Your task to perform on an android device: Find coffee shops on Maps Image 0: 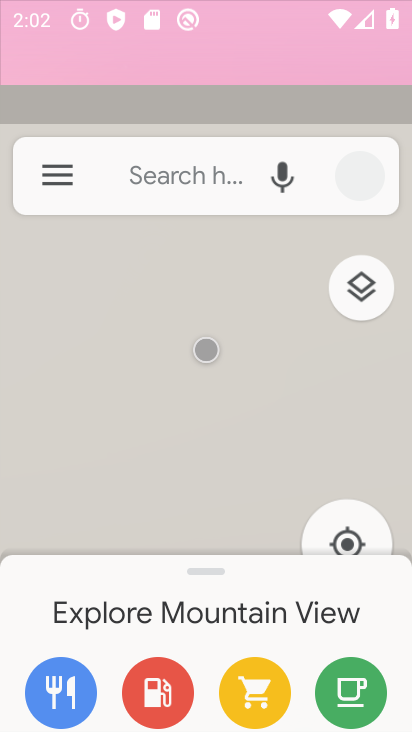
Step 0: drag from (314, 521) to (295, 176)
Your task to perform on an android device: Find coffee shops on Maps Image 1: 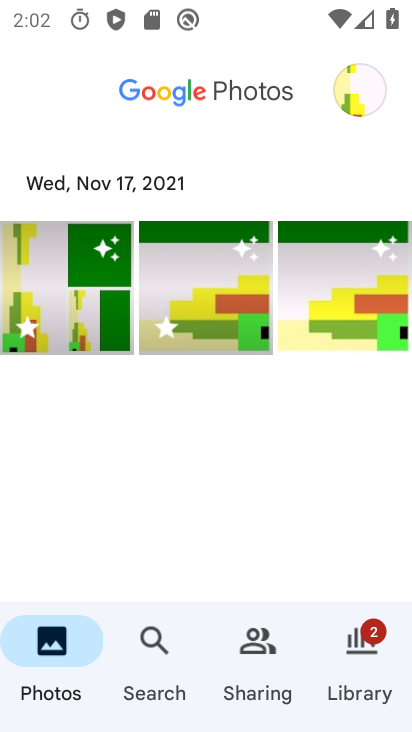
Step 1: press home button
Your task to perform on an android device: Find coffee shops on Maps Image 2: 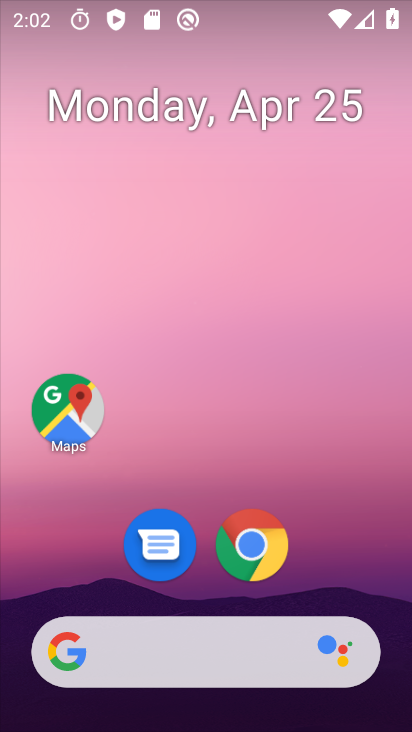
Step 2: drag from (322, 457) to (321, 123)
Your task to perform on an android device: Find coffee shops on Maps Image 3: 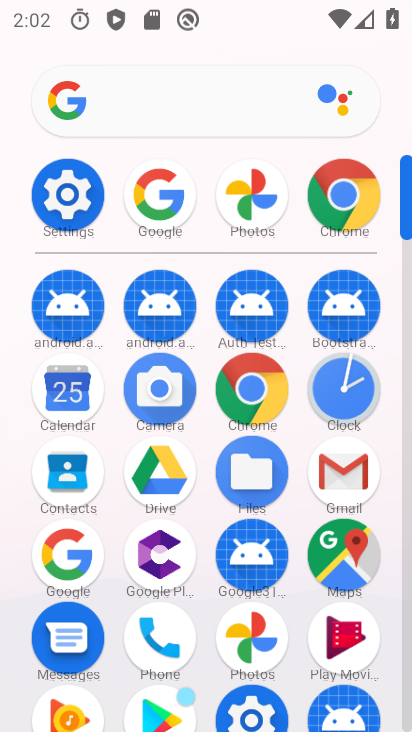
Step 3: click (350, 561)
Your task to perform on an android device: Find coffee shops on Maps Image 4: 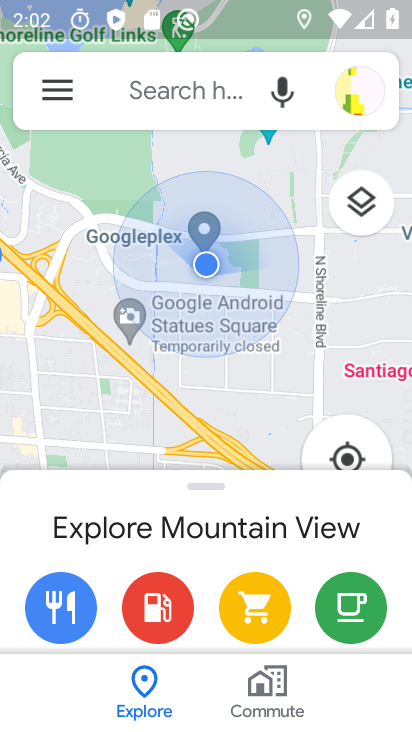
Step 4: click (182, 100)
Your task to perform on an android device: Find coffee shops on Maps Image 5: 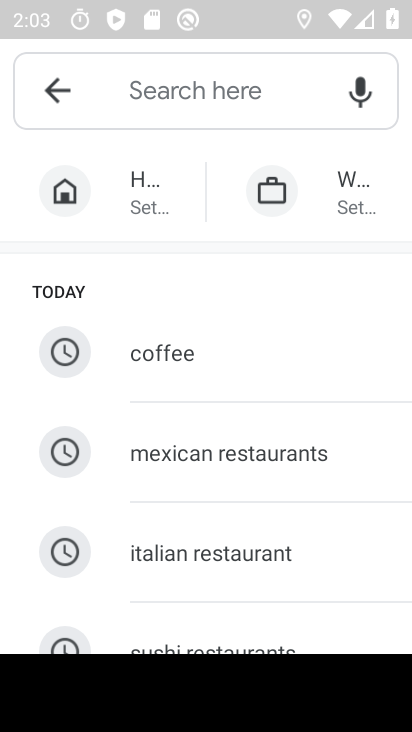
Step 5: type "coffee shops"
Your task to perform on an android device: Find coffee shops on Maps Image 6: 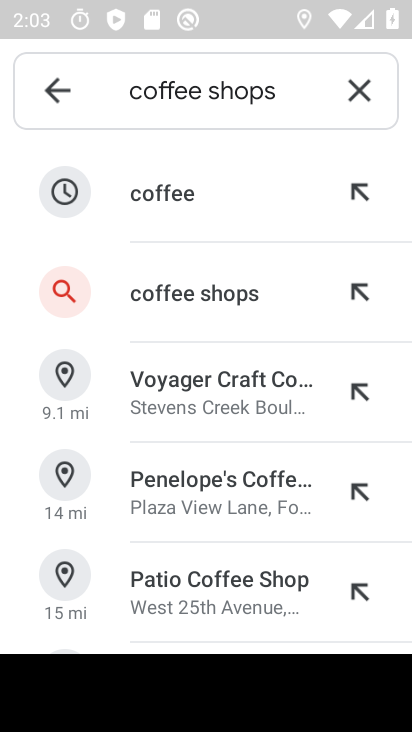
Step 6: click (217, 308)
Your task to perform on an android device: Find coffee shops on Maps Image 7: 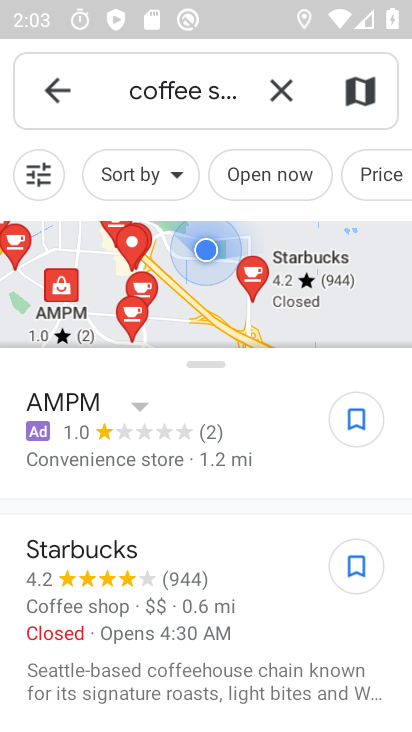
Step 7: task complete